Your task to perform on an android device: all mails in gmail Image 0: 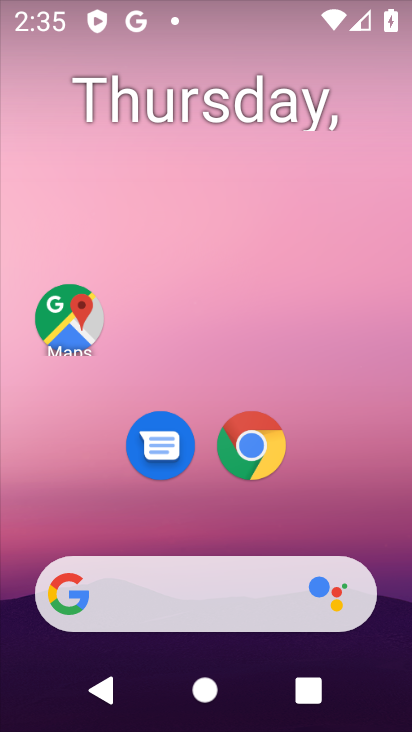
Step 0: drag from (219, 448) to (270, 31)
Your task to perform on an android device: all mails in gmail Image 1: 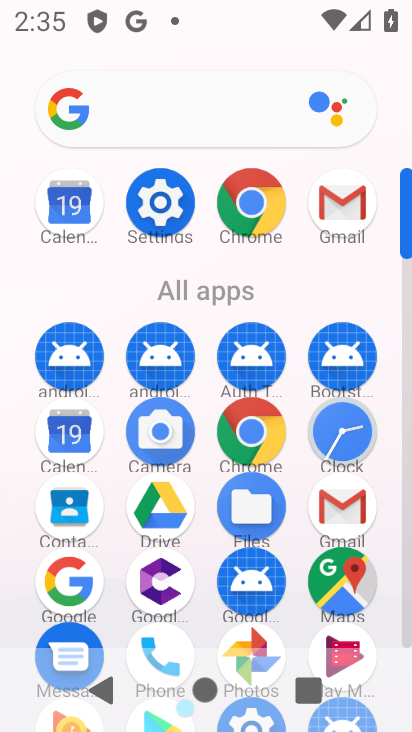
Step 1: click (343, 507)
Your task to perform on an android device: all mails in gmail Image 2: 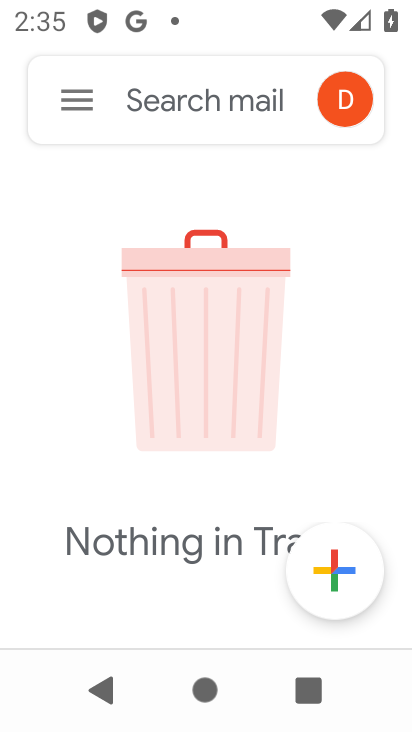
Step 2: click (81, 95)
Your task to perform on an android device: all mails in gmail Image 3: 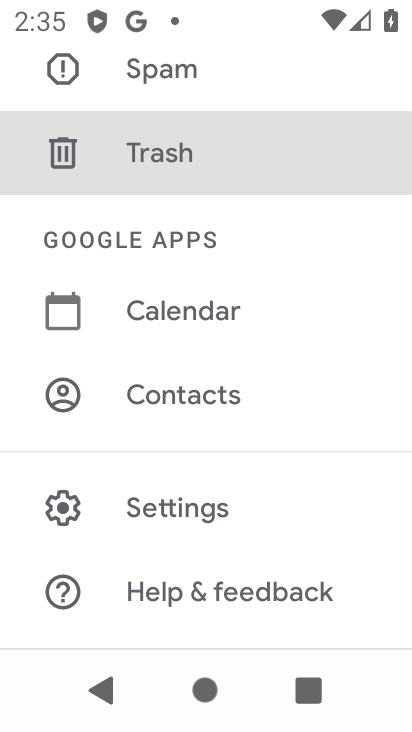
Step 3: drag from (162, 237) to (158, 481)
Your task to perform on an android device: all mails in gmail Image 4: 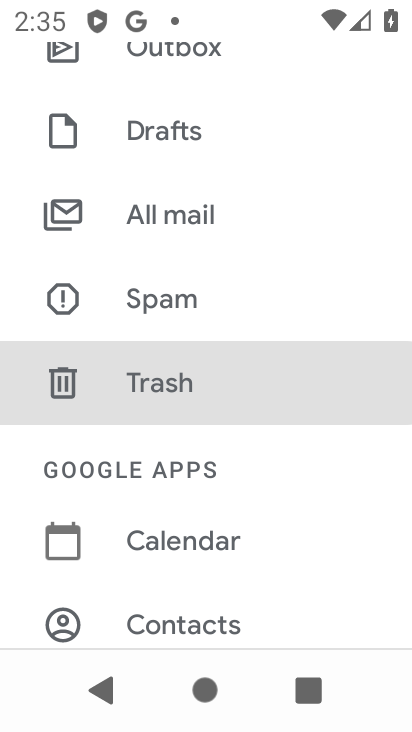
Step 4: click (179, 220)
Your task to perform on an android device: all mails in gmail Image 5: 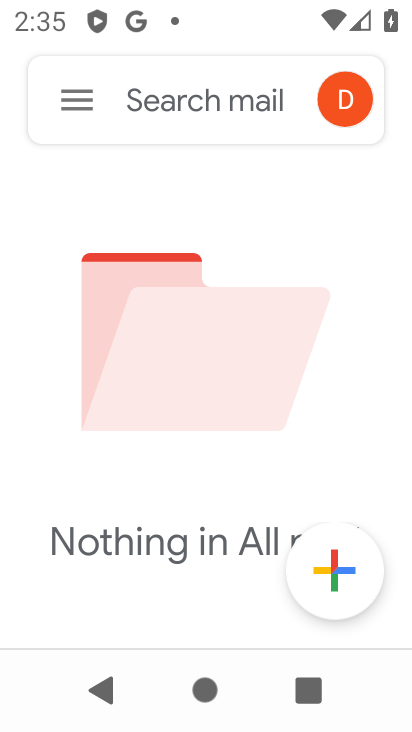
Step 5: task complete